Your task to perform on an android device: Open the web browser Image 0: 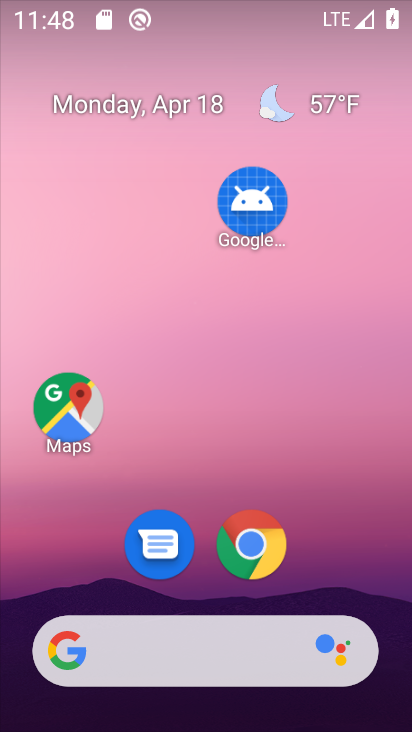
Step 0: drag from (246, 662) to (238, 319)
Your task to perform on an android device: Open the web browser Image 1: 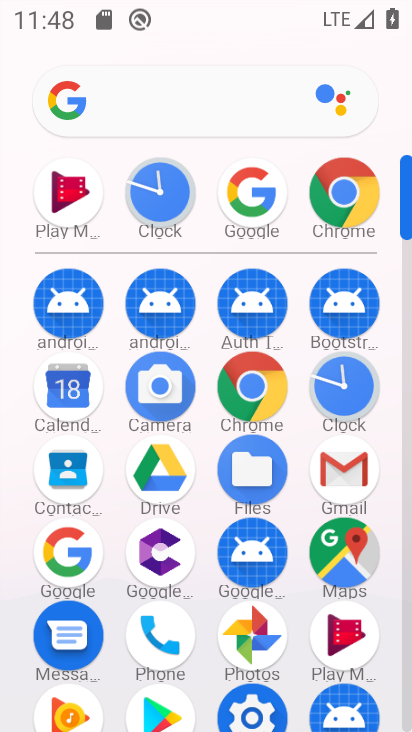
Step 1: click (236, 388)
Your task to perform on an android device: Open the web browser Image 2: 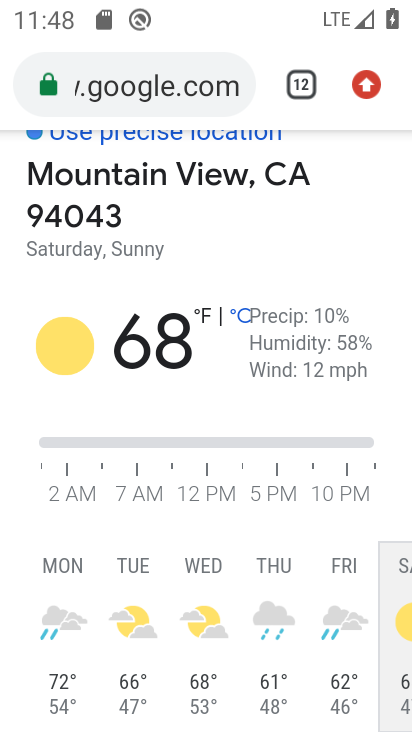
Step 2: click (363, 82)
Your task to perform on an android device: Open the web browser Image 3: 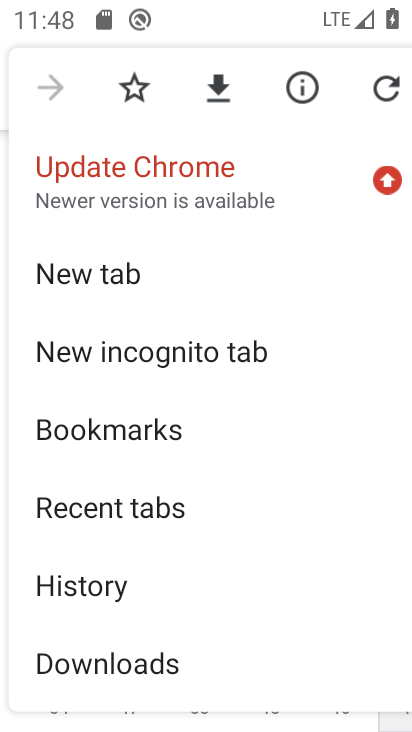
Step 3: click (152, 297)
Your task to perform on an android device: Open the web browser Image 4: 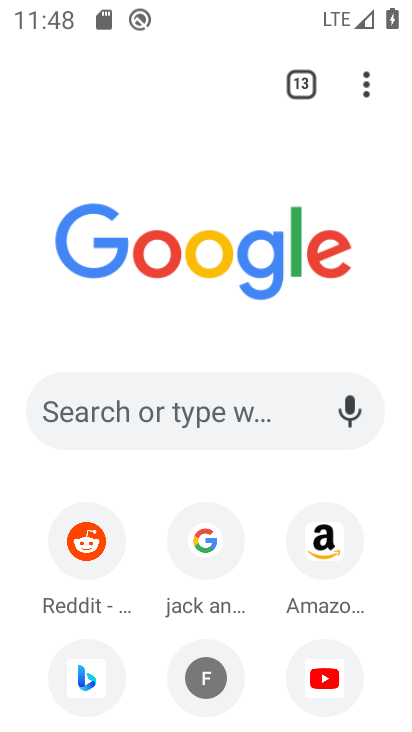
Step 4: click (278, 390)
Your task to perform on an android device: Open the web browser Image 5: 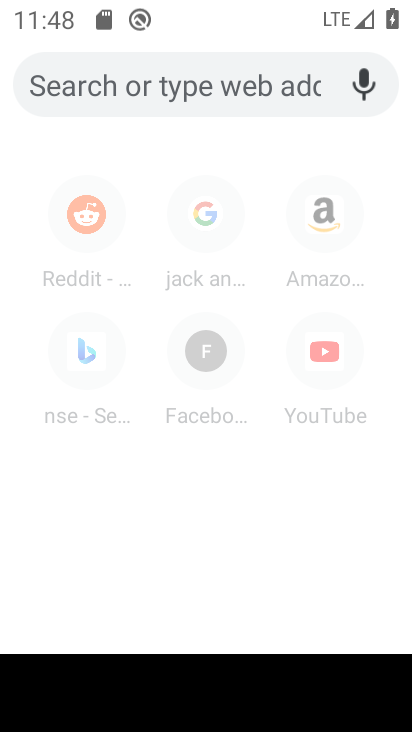
Step 5: type "web browser"
Your task to perform on an android device: Open the web browser Image 6: 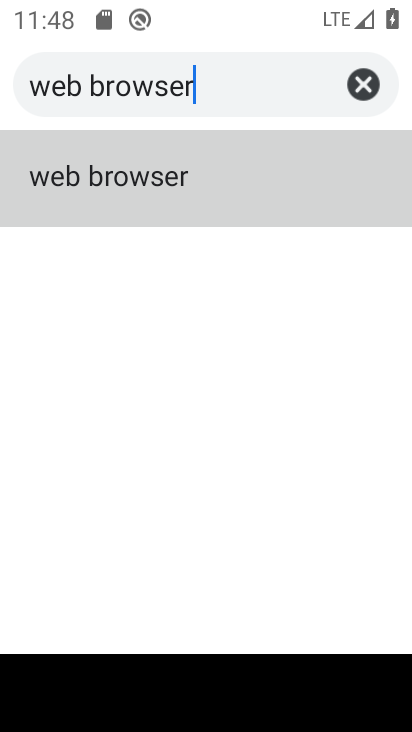
Step 6: click (270, 199)
Your task to perform on an android device: Open the web browser Image 7: 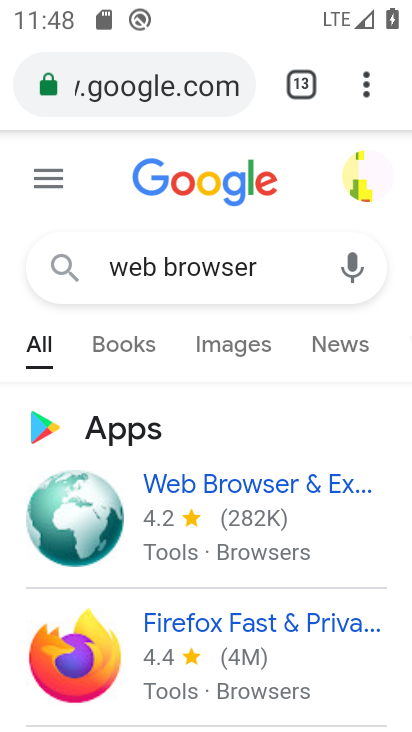
Step 7: task complete